Your task to perform on an android device: open app "Adobe Acrobat Reader" Image 0: 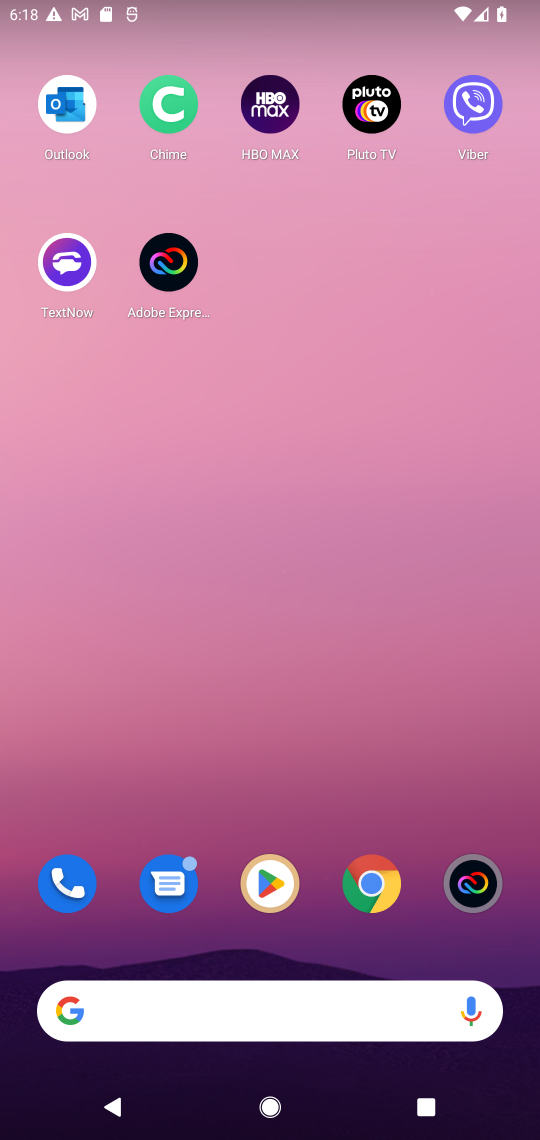
Step 0: click (261, 865)
Your task to perform on an android device: open app "Adobe Acrobat Reader" Image 1: 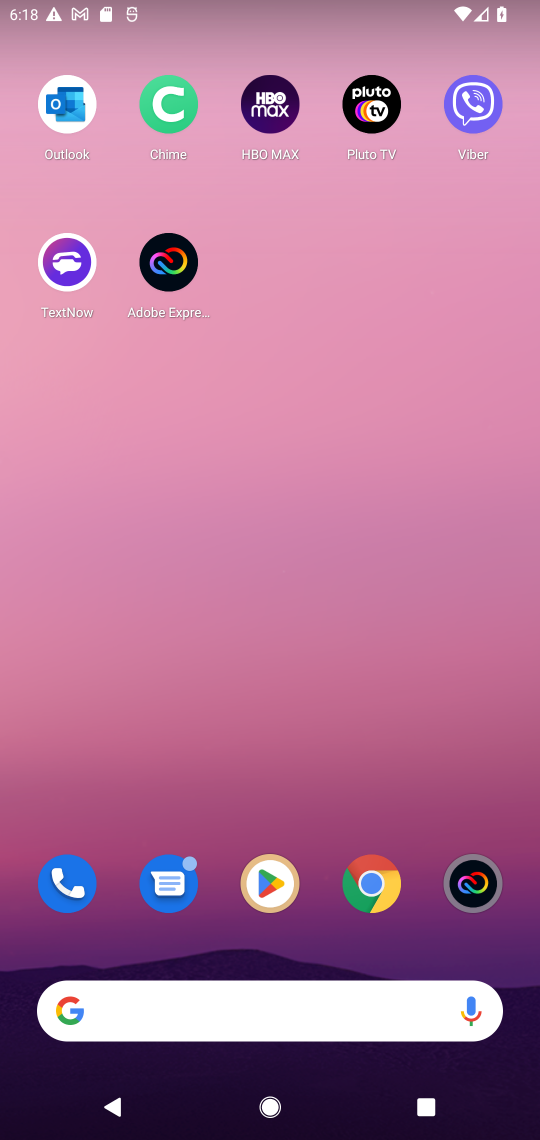
Step 1: click (263, 867)
Your task to perform on an android device: open app "Adobe Acrobat Reader" Image 2: 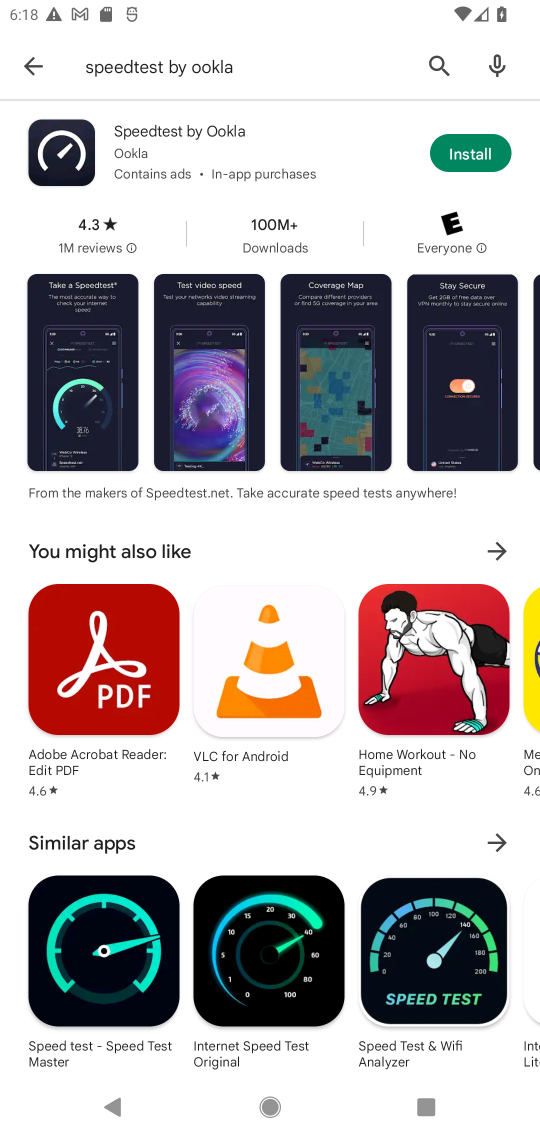
Step 2: click (433, 46)
Your task to perform on an android device: open app "Adobe Acrobat Reader" Image 3: 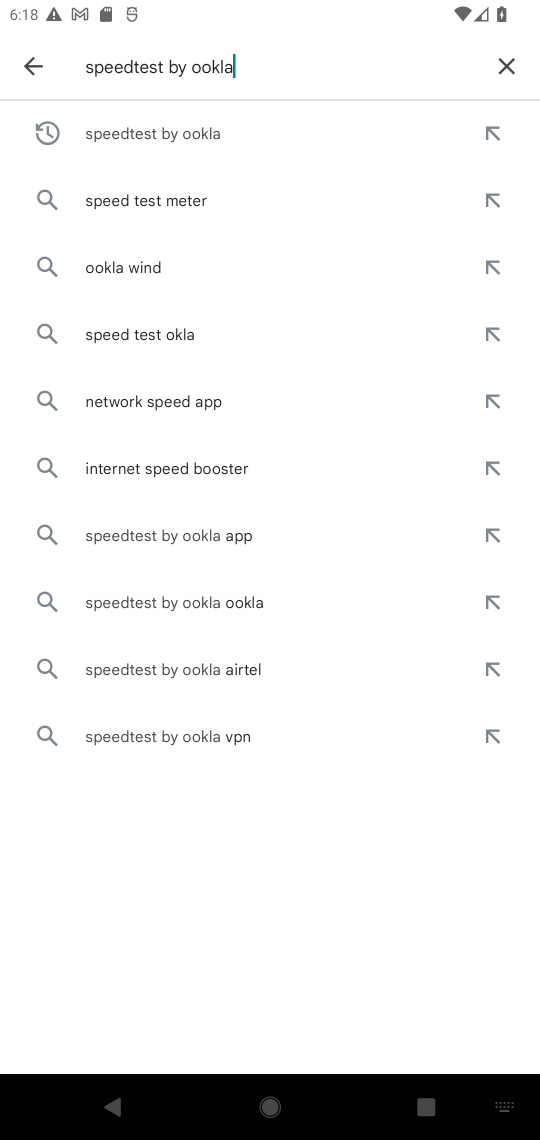
Step 3: click (514, 69)
Your task to perform on an android device: open app "Adobe Acrobat Reader" Image 4: 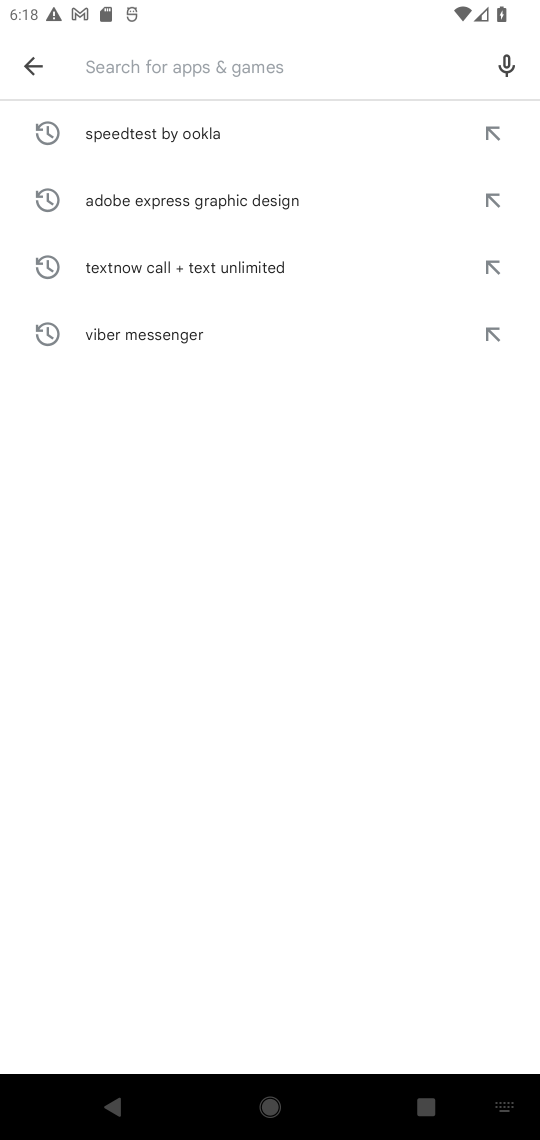
Step 4: type "Adobe Acrobat Reade"
Your task to perform on an android device: open app "Adobe Acrobat Reader" Image 5: 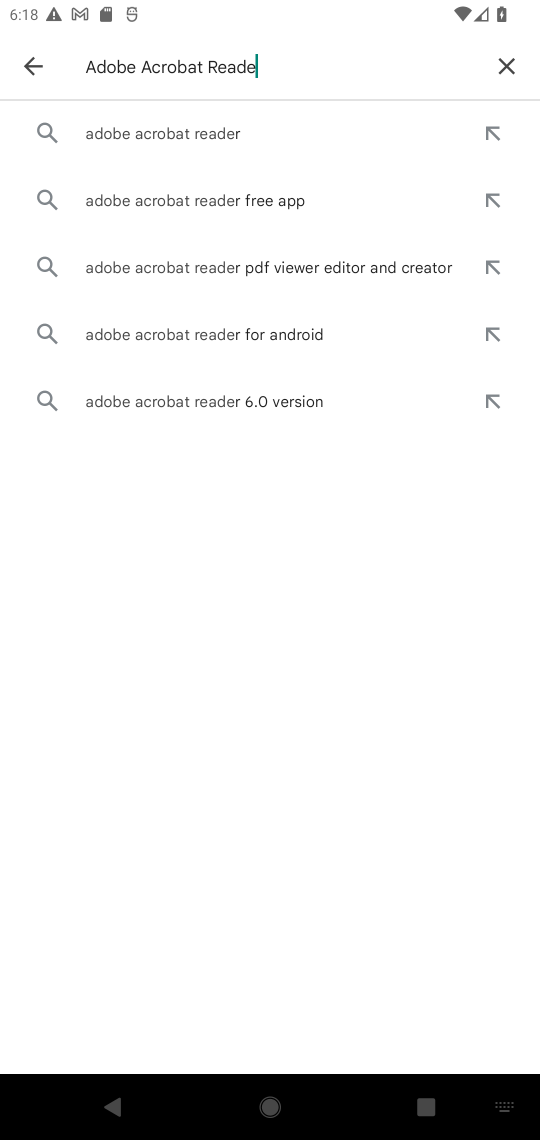
Step 5: click (148, 123)
Your task to perform on an android device: open app "Adobe Acrobat Reader" Image 6: 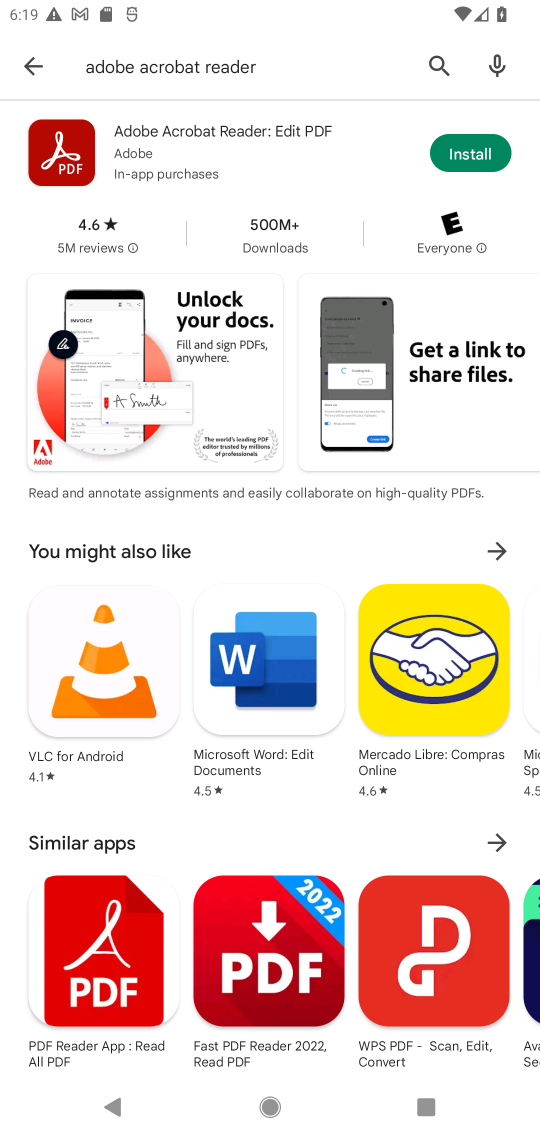
Step 6: task complete